Your task to perform on an android device: Go to ESPN.com Image 0: 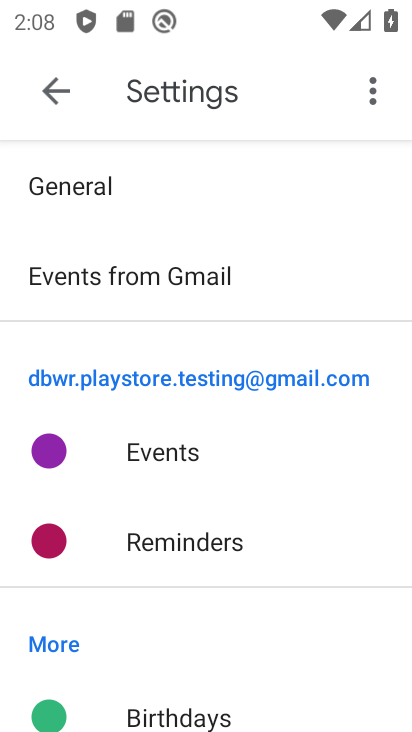
Step 0: press home button
Your task to perform on an android device: Go to ESPN.com Image 1: 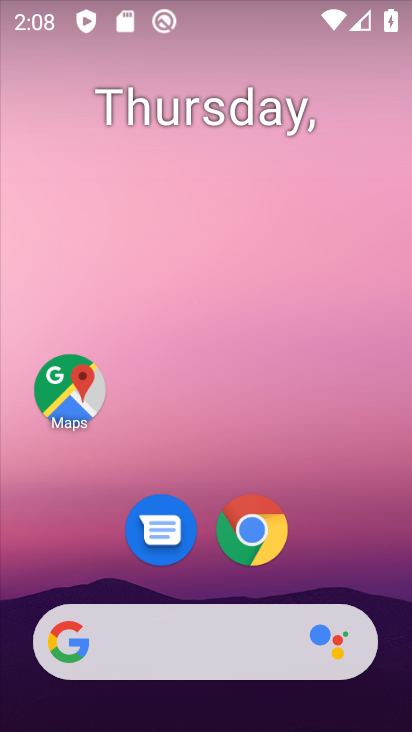
Step 1: click (247, 643)
Your task to perform on an android device: Go to ESPN.com Image 2: 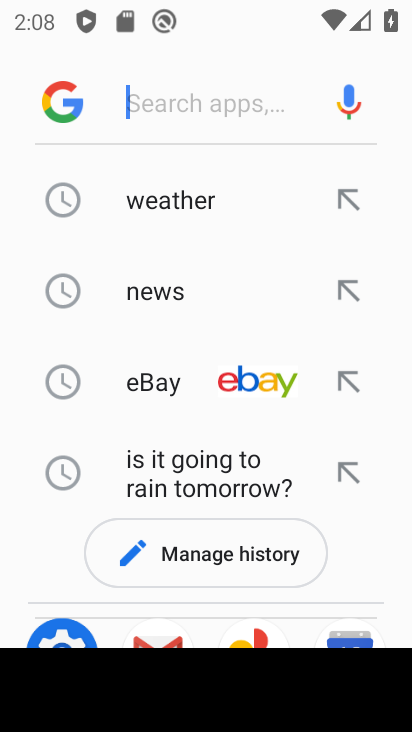
Step 2: type "espn.com"
Your task to perform on an android device: Go to ESPN.com Image 3: 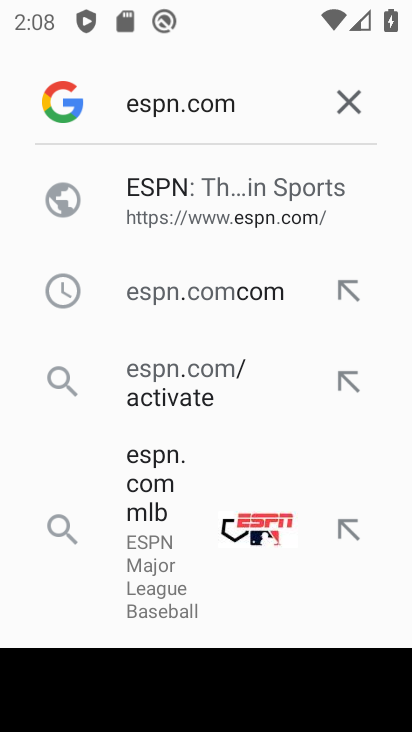
Step 3: click (269, 203)
Your task to perform on an android device: Go to ESPN.com Image 4: 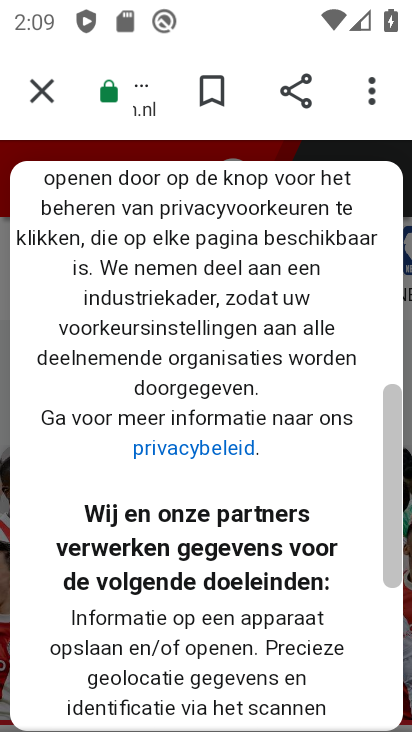
Step 4: task complete